Your task to perform on an android device: Open notification settings Image 0: 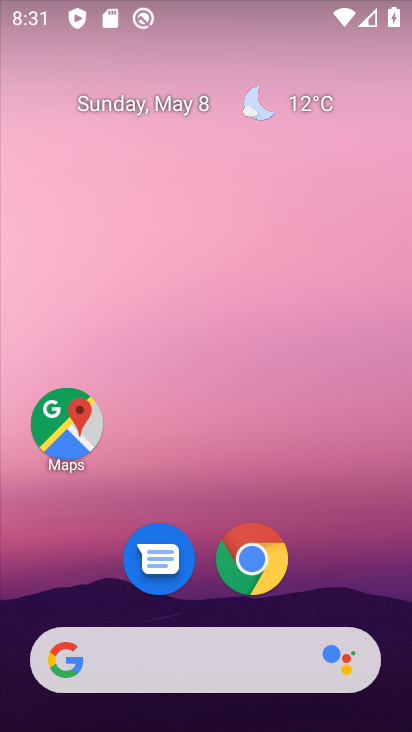
Step 0: drag from (205, 616) to (186, 10)
Your task to perform on an android device: Open notification settings Image 1: 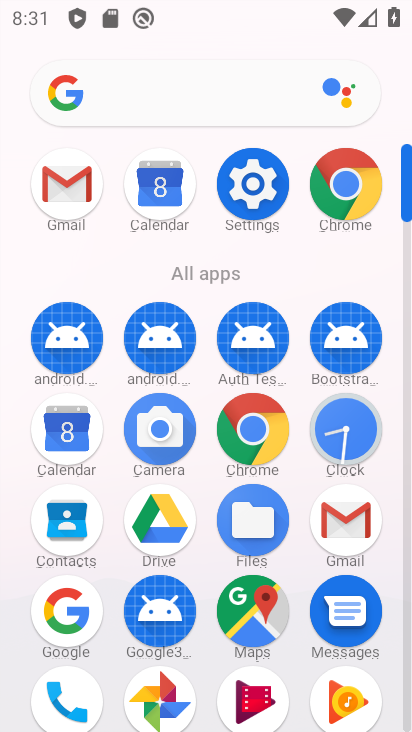
Step 1: click (245, 176)
Your task to perform on an android device: Open notification settings Image 2: 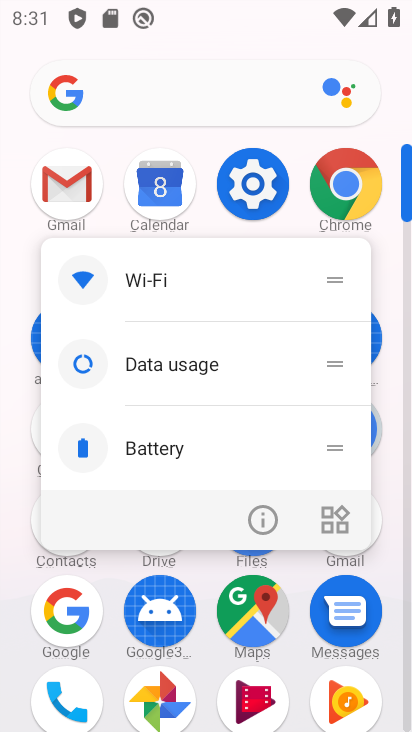
Step 2: click (266, 182)
Your task to perform on an android device: Open notification settings Image 3: 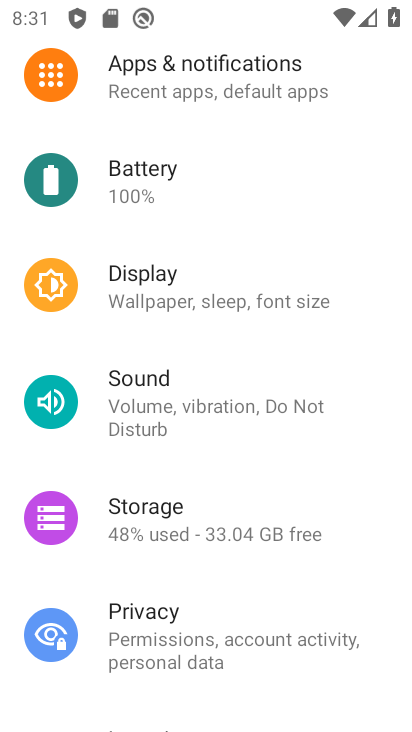
Step 3: drag from (224, 532) to (249, 16)
Your task to perform on an android device: Open notification settings Image 4: 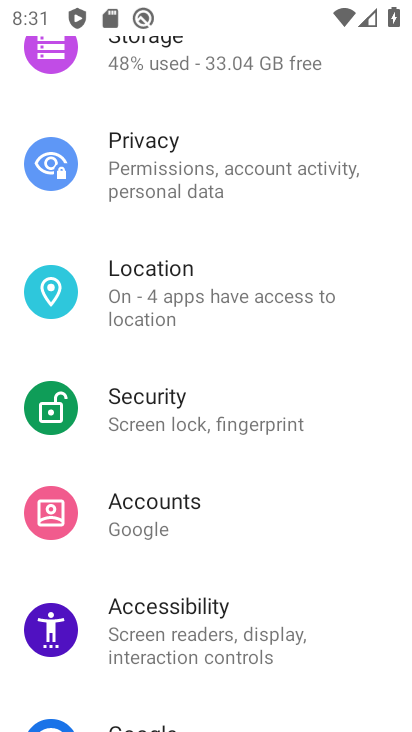
Step 4: drag from (228, 156) to (108, 581)
Your task to perform on an android device: Open notification settings Image 5: 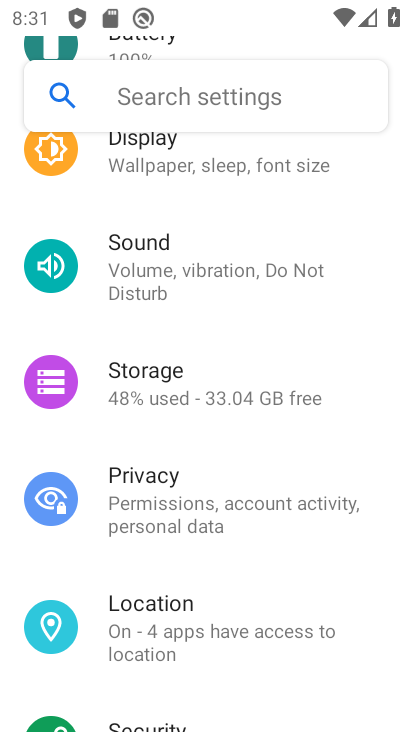
Step 5: drag from (204, 179) to (180, 547)
Your task to perform on an android device: Open notification settings Image 6: 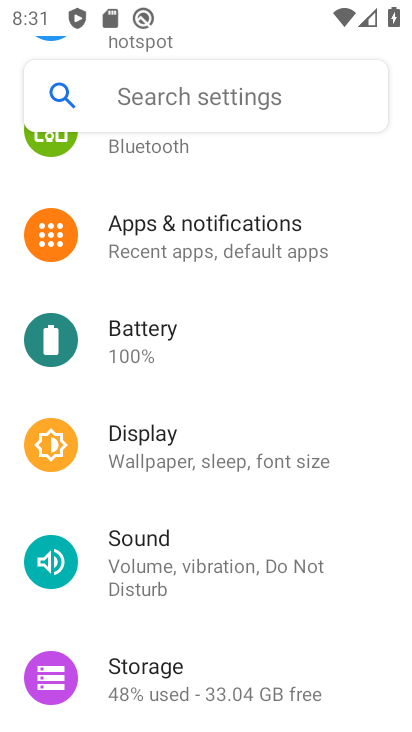
Step 6: click (191, 280)
Your task to perform on an android device: Open notification settings Image 7: 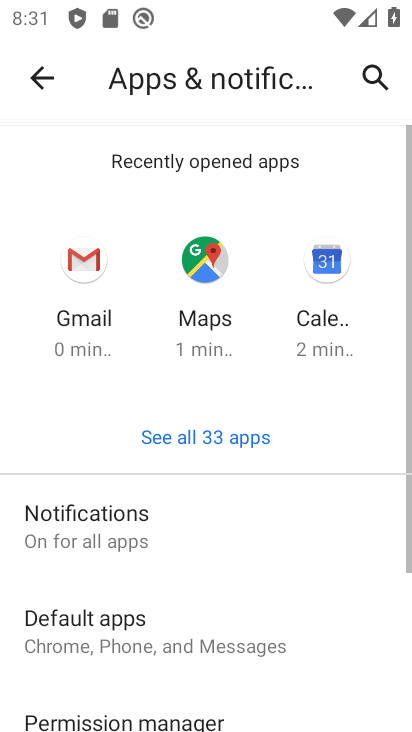
Step 7: click (129, 546)
Your task to perform on an android device: Open notification settings Image 8: 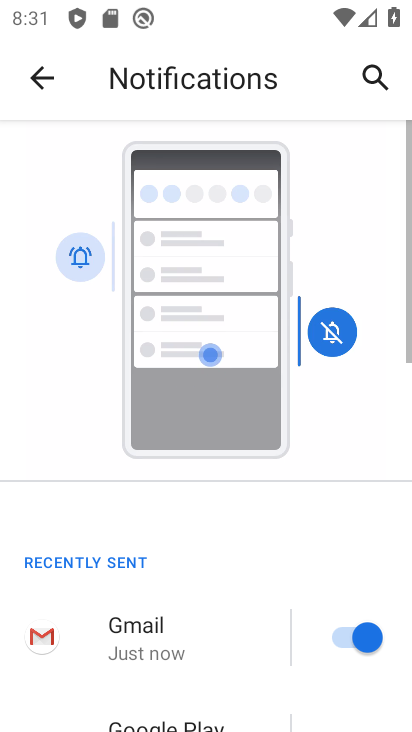
Step 8: task complete